Your task to perform on an android device: toggle sleep mode Image 0: 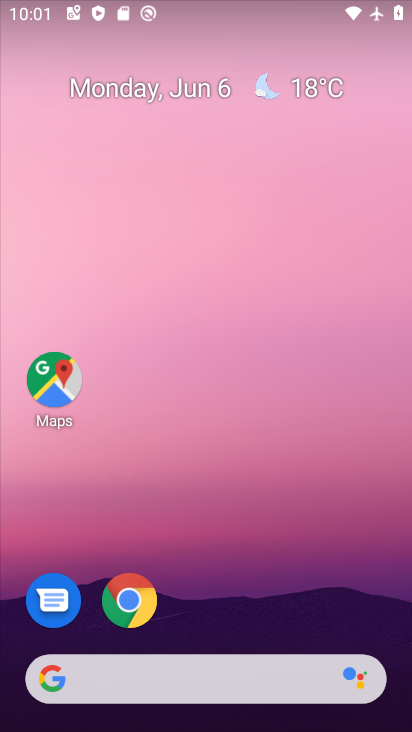
Step 0: drag from (272, 531) to (262, 3)
Your task to perform on an android device: toggle sleep mode Image 1: 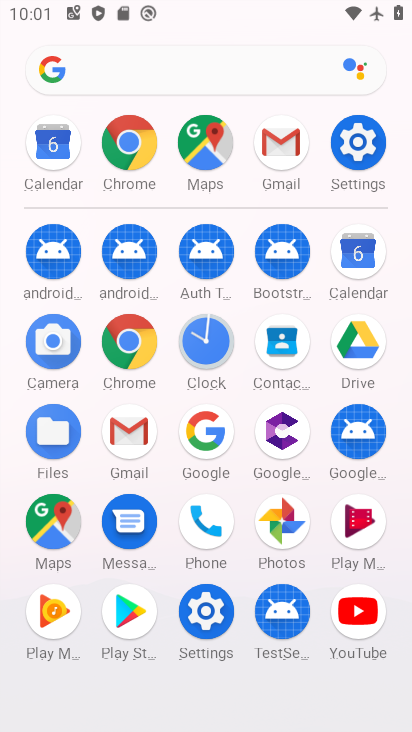
Step 1: click (358, 141)
Your task to perform on an android device: toggle sleep mode Image 2: 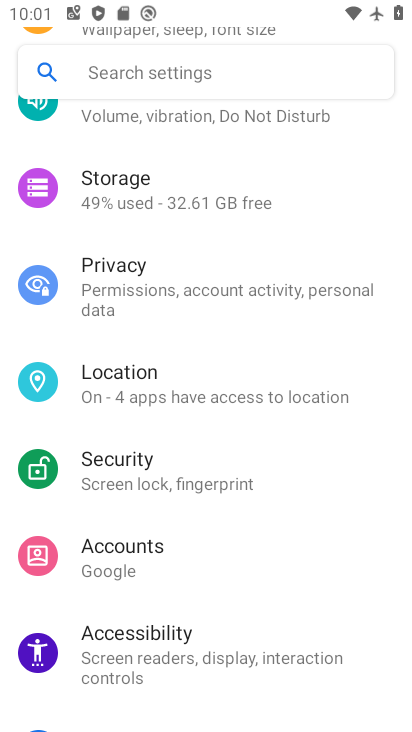
Step 2: drag from (334, 224) to (313, 593)
Your task to perform on an android device: toggle sleep mode Image 3: 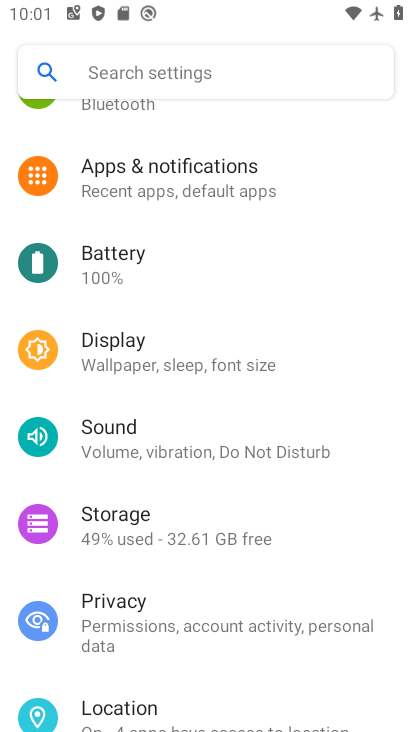
Step 3: drag from (325, 194) to (295, 584)
Your task to perform on an android device: toggle sleep mode Image 4: 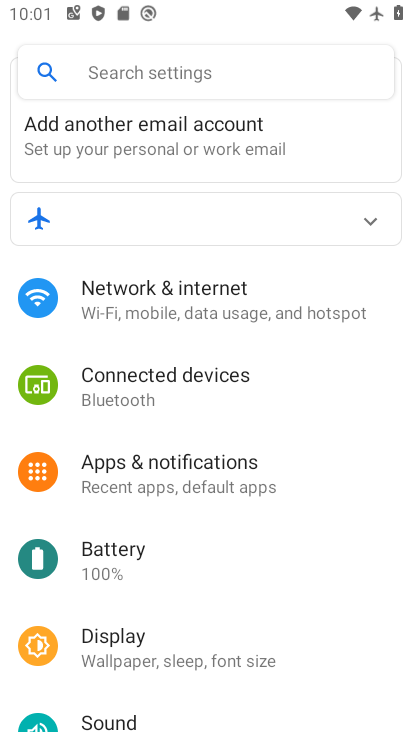
Step 4: click (238, 303)
Your task to perform on an android device: toggle sleep mode Image 5: 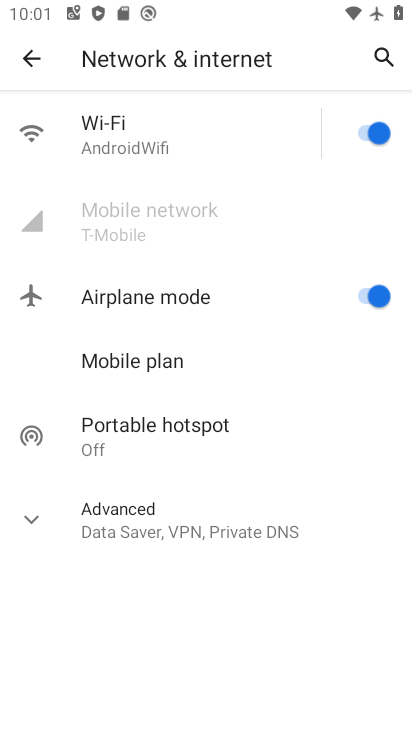
Step 5: click (52, 522)
Your task to perform on an android device: toggle sleep mode Image 6: 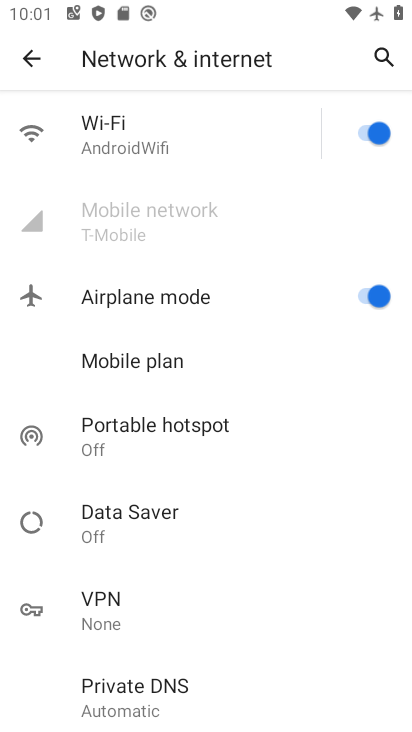
Step 6: drag from (199, 569) to (218, 198)
Your task to perform on an android device: toggle sleep mode Image 7: 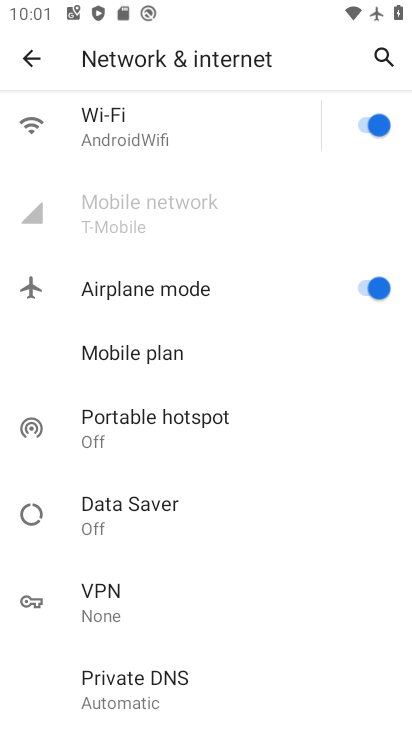
Step 7: click (373, 293)
Your task to perform on an android device: toggle sleep mode Image 8: 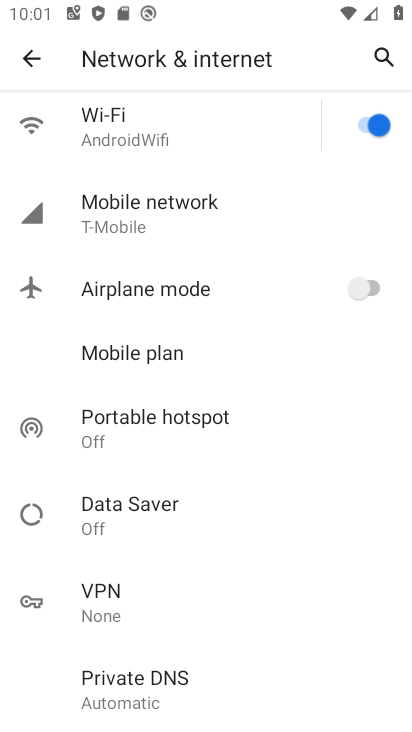
Step 8: task complete